Your task to perform on an android device: turn off location Image 0: 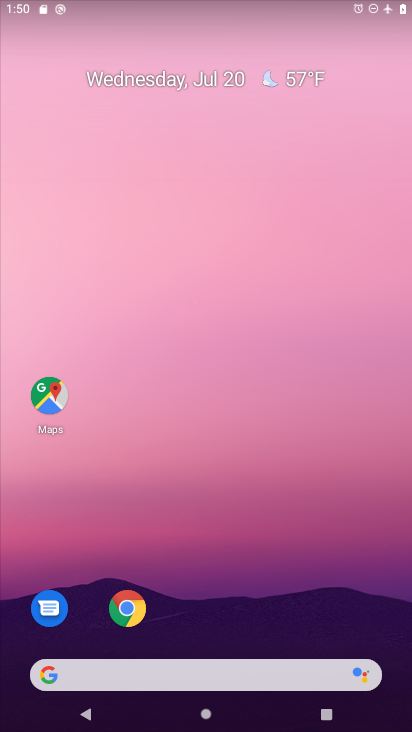
Step 0: drag from (221, 623) to (119, 58)
Your task to perform on an android device: turn off location Image 1: 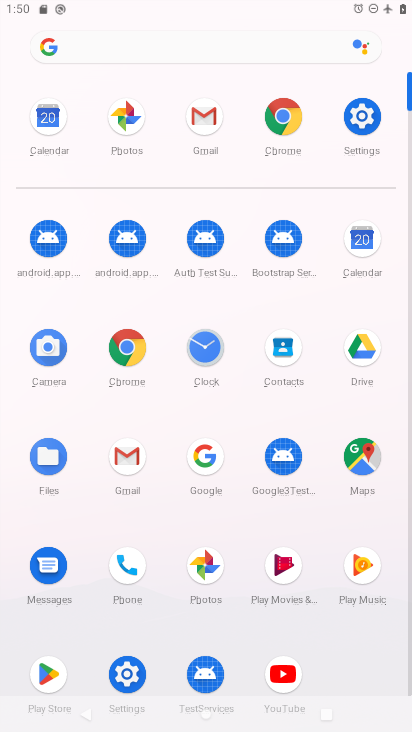
Step 1: click (367, 124)
Your task to perform on an android device: turn off location Image 2: 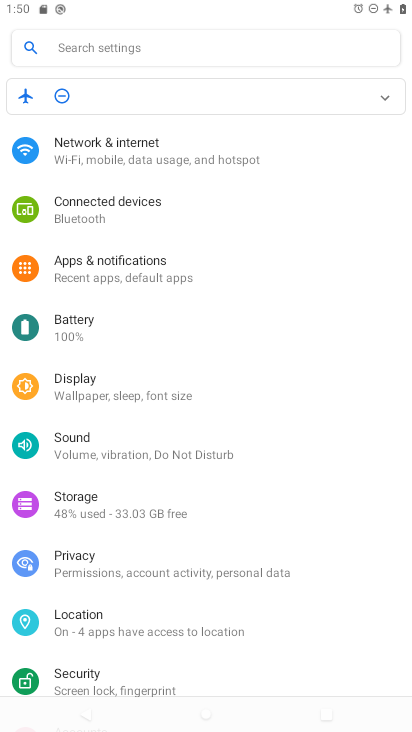
Step 2: click (109, 631)
Your task to perform on an android device: turn off location Image 3: 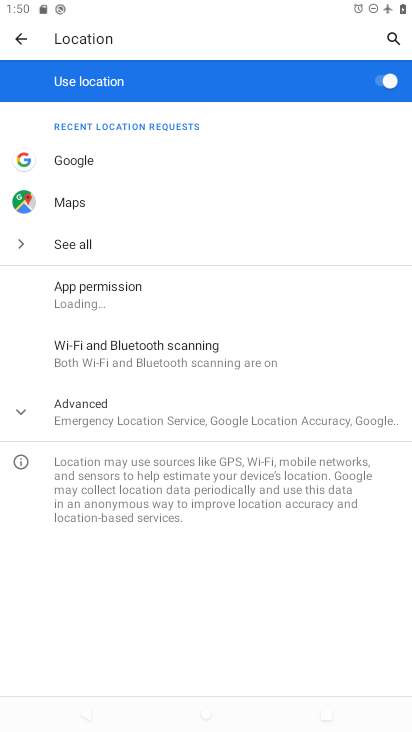
Step 3: click (388, 80)
Your task to perform on an android device: turn off location Image 4: 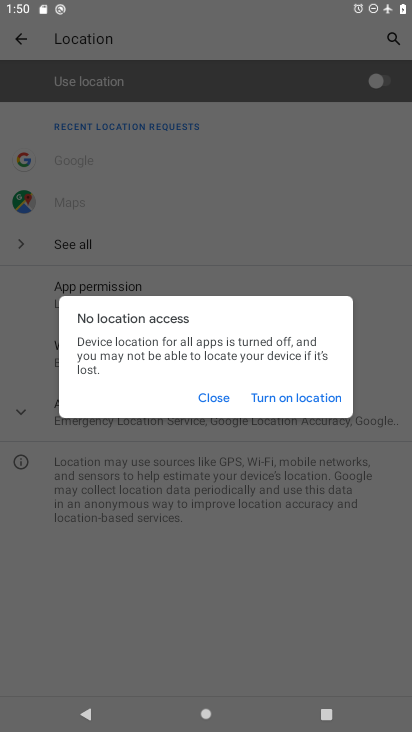
Step 4: task complete